Your task to perform on an android device: Go to accessibility settings Image 0: 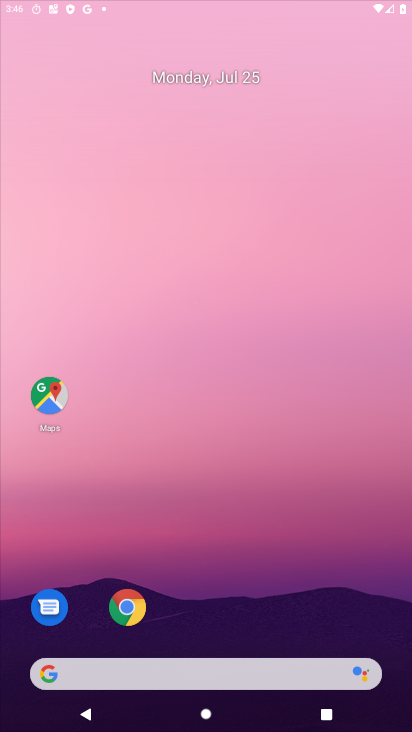
Step 0: press home button
Your task to perform on an android device: Go to accessibility settings Image 1: 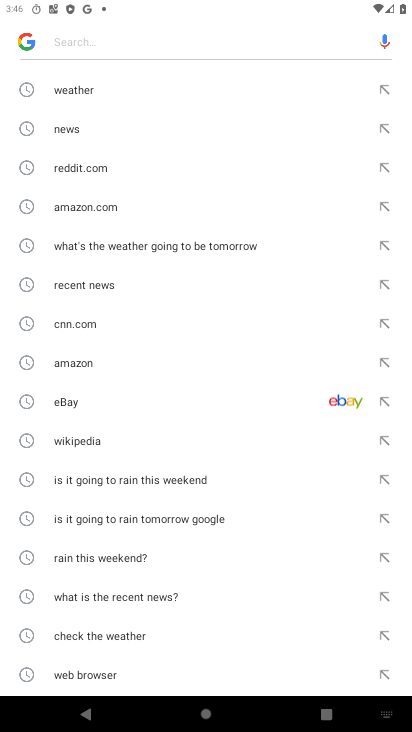
Step 1: drag from (219, 612) to (223, 26)
Your task to perform on an android device: Go to accessibility settings Image 2: 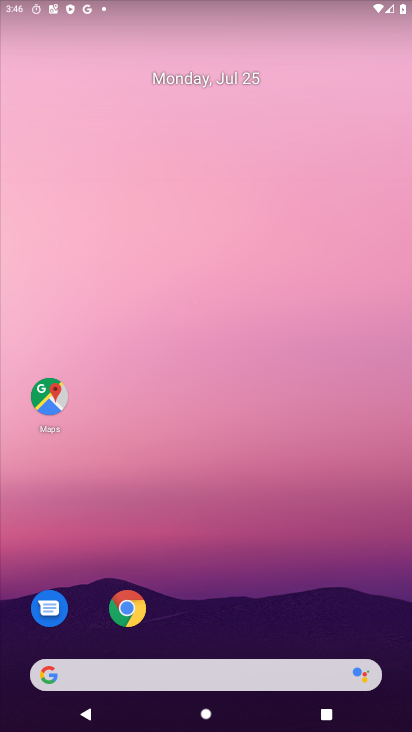
Step 2: drag from (223, 642) to (247, 36)
Your task to perform on an android device: Go to accessibility settings Image 3: 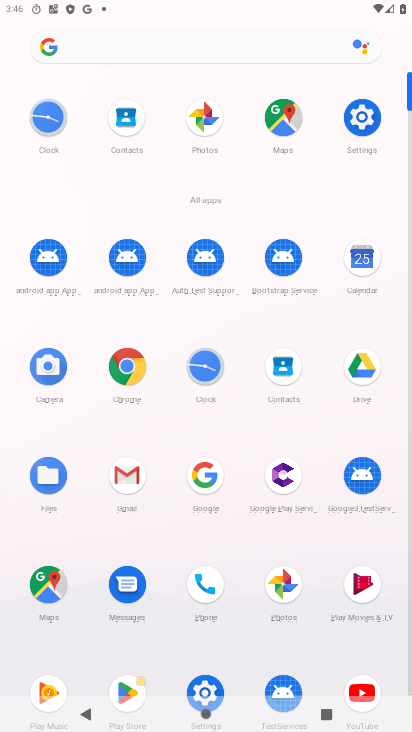
Step 3: click (360, 114)
Your task to perform on an android device: Go to accessibility settings Image 4: 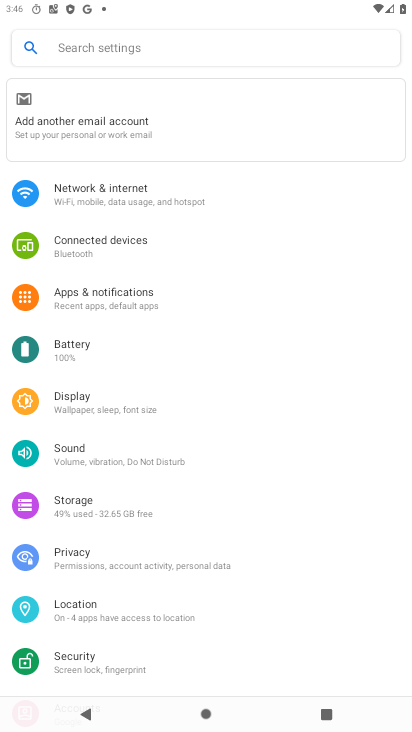
Step 4: drag from (142, 647) to (202, 62)
Your task to perform on an android device: Go to accessibility settings Image 5: 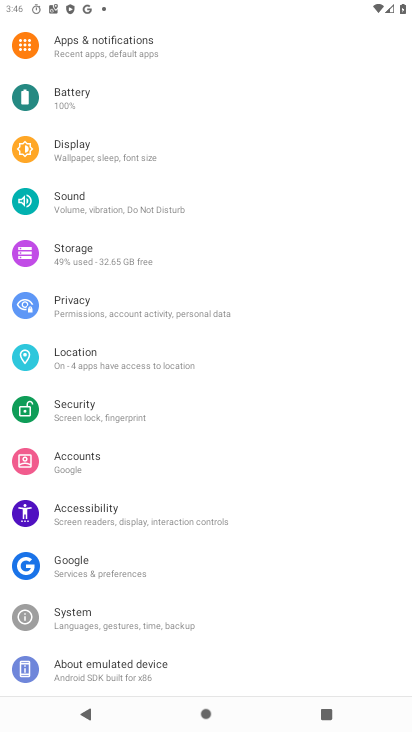
Step 5: click (127, 510)
Your task to perform on an android device: Go to accessibility settings Image 6: 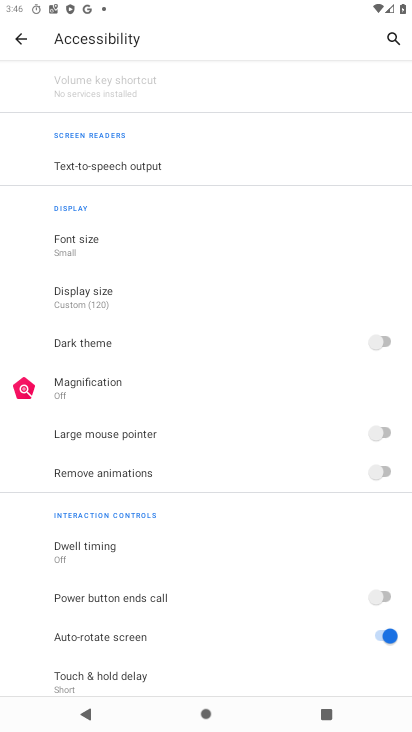
Step 6: task complete